Your task to perform on an android device: Play the last video I watched on Youtube Image 0: 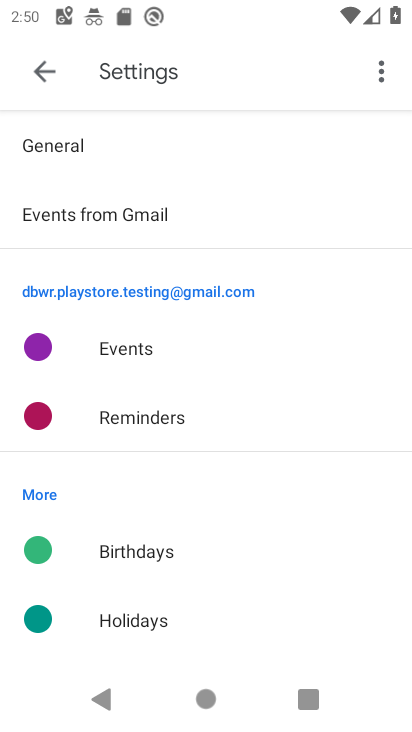
Step 0: press home button
Your task to perform on an android device: Play the last video I watched on Youtube Image 1: 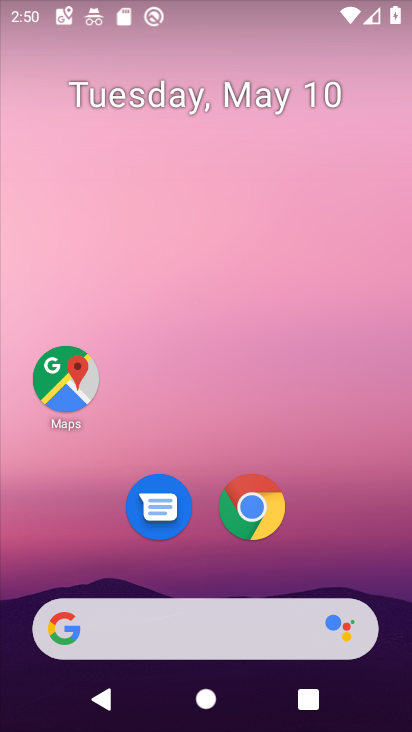
Step 1: drag from (187, 587) to (196, 162)
Your task to perform on an android device: Play the last video I watched on Youtube Image 2: 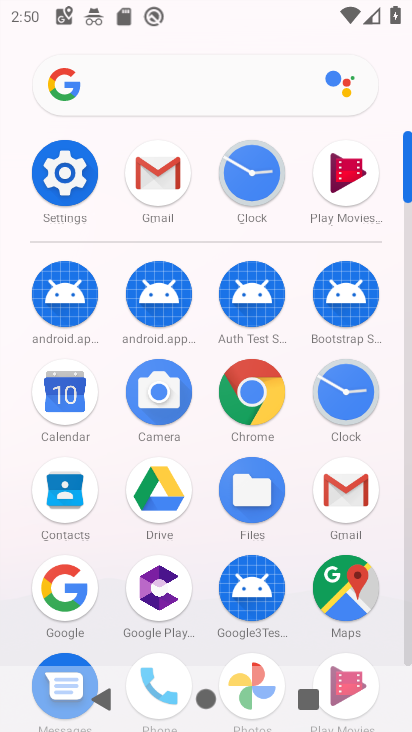
Step 2: drag from (205, 652) to (226, 285)
Your task to perform on an android device: Play the last video I watched on Youtube Image 3: 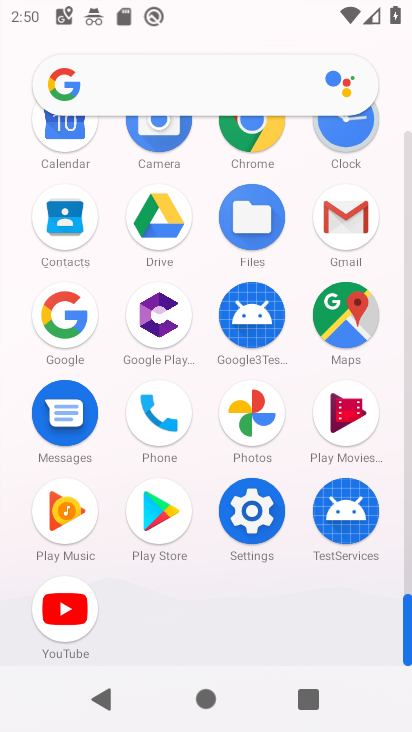
Step 3: click (62, 610)
Your task to perform on an android device: Play the last video I watched on Youtube Image 4: 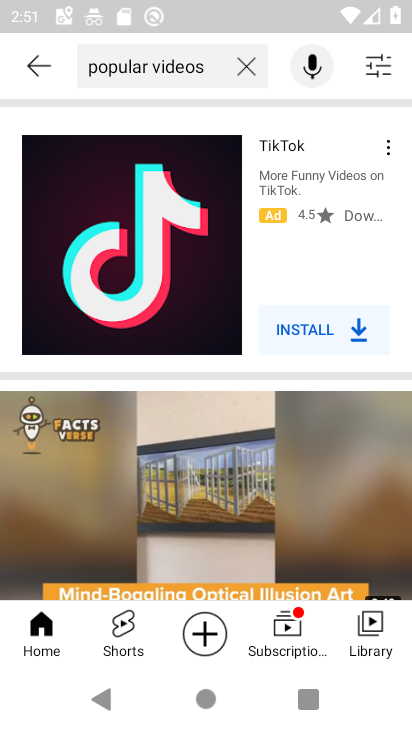
Step 4: click (367, 631)
Your task to perform on an android device: Play the last video I watched on Youtube Image 5: 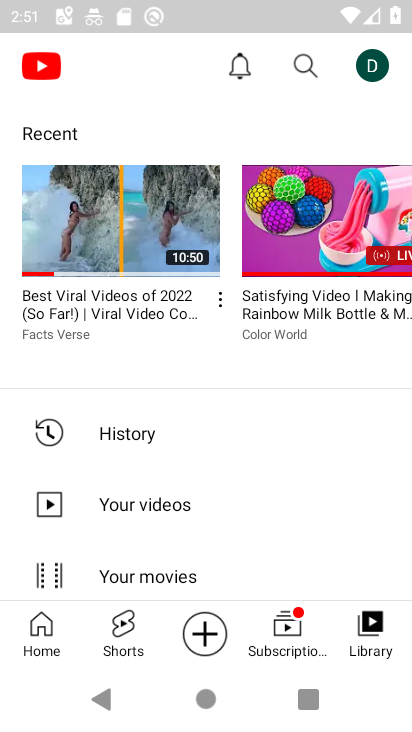
Step 5: drag from (171, 509) to (193, 282)
Your task to perform on an android device: Play the last video I watched on Youtube Image 6: 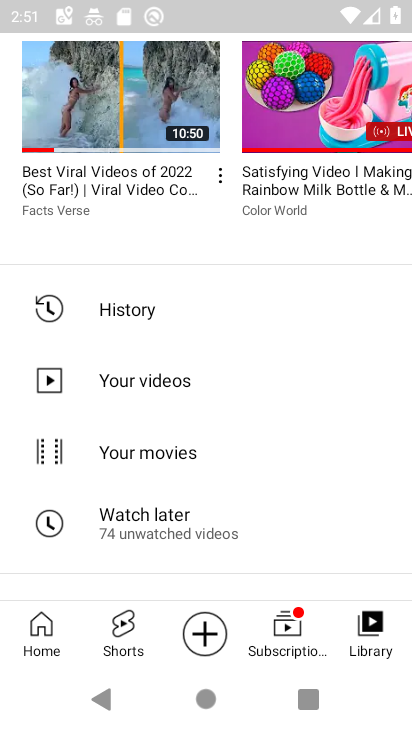
Step 6: click (150, 311)
Your task to perform on an android device: Play the last video I watched on Youtube Image 7: 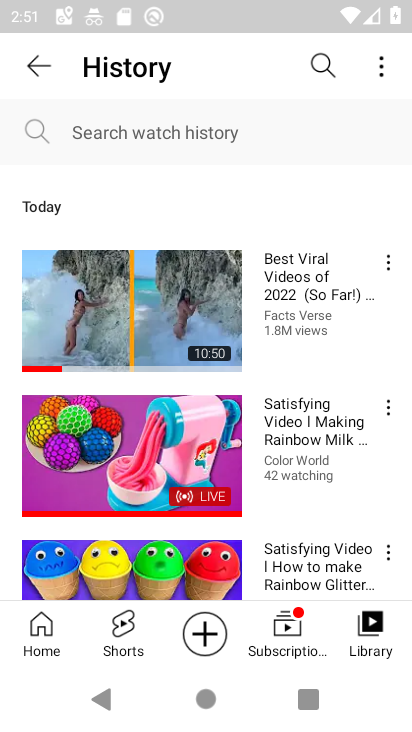
Step 7: task complete